Your task to perform on an android device: Do I have any events today? Image 0: 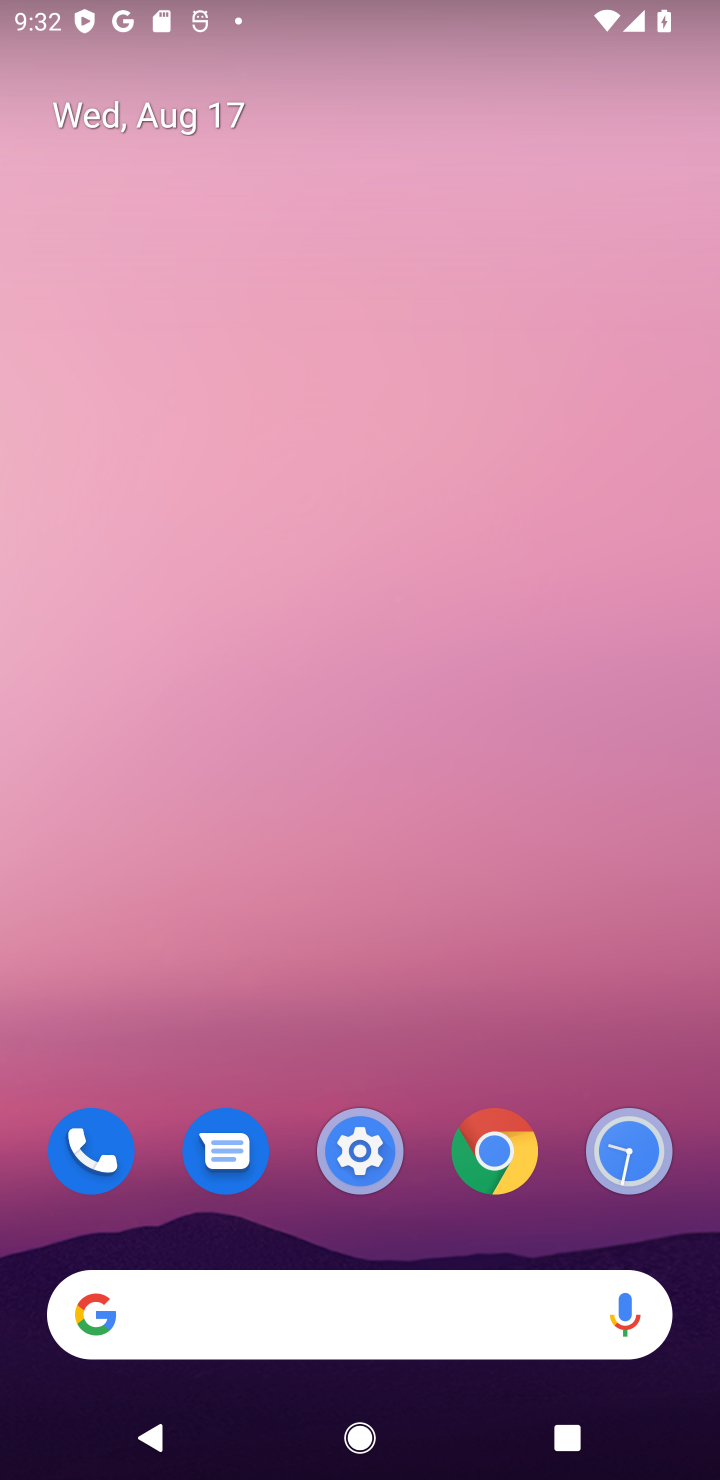
Step 0: drag from (324, 1199) to (361, 191)
Your task to perform on an android device: Do I have any events today? Image 1: 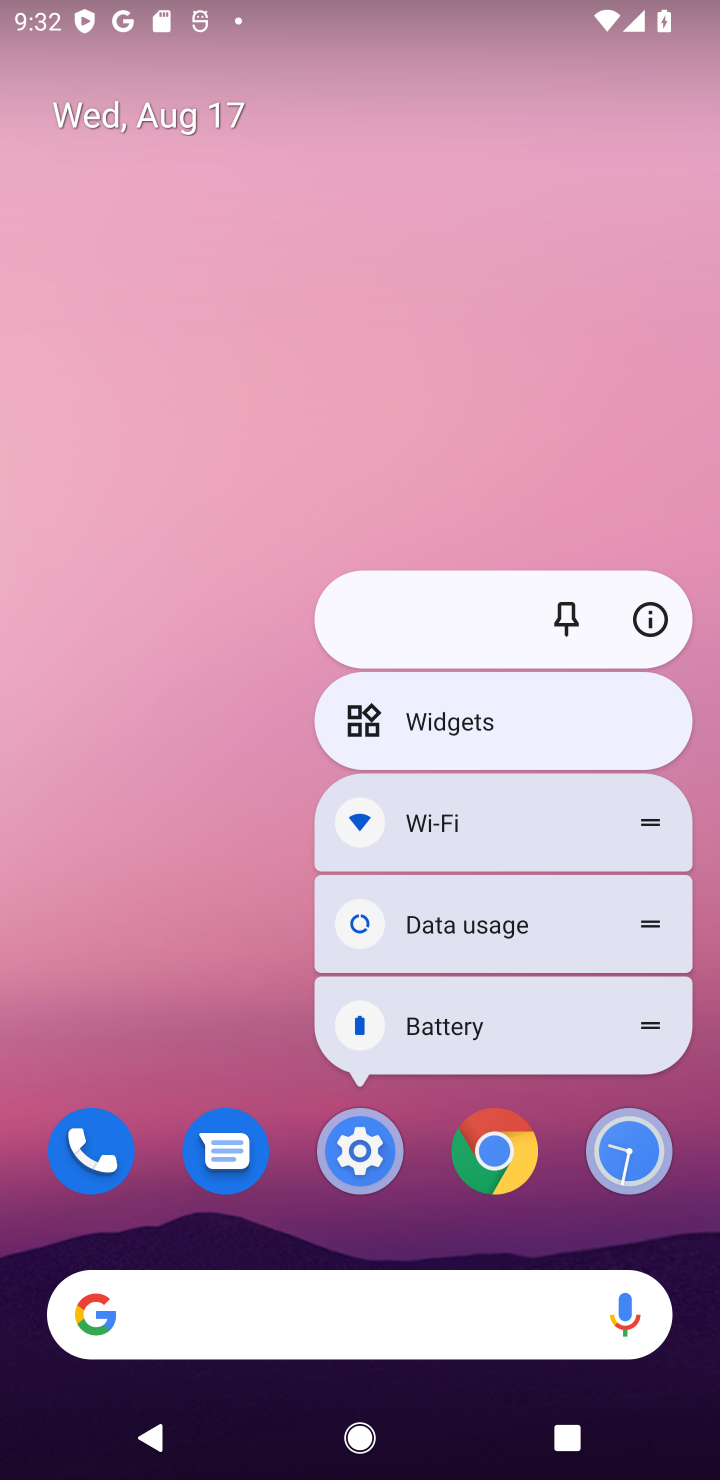
Step 1: drag from (367, 1096) to (429, 108)
Your task to perform on an android device: Do I have any events today? Image 2: 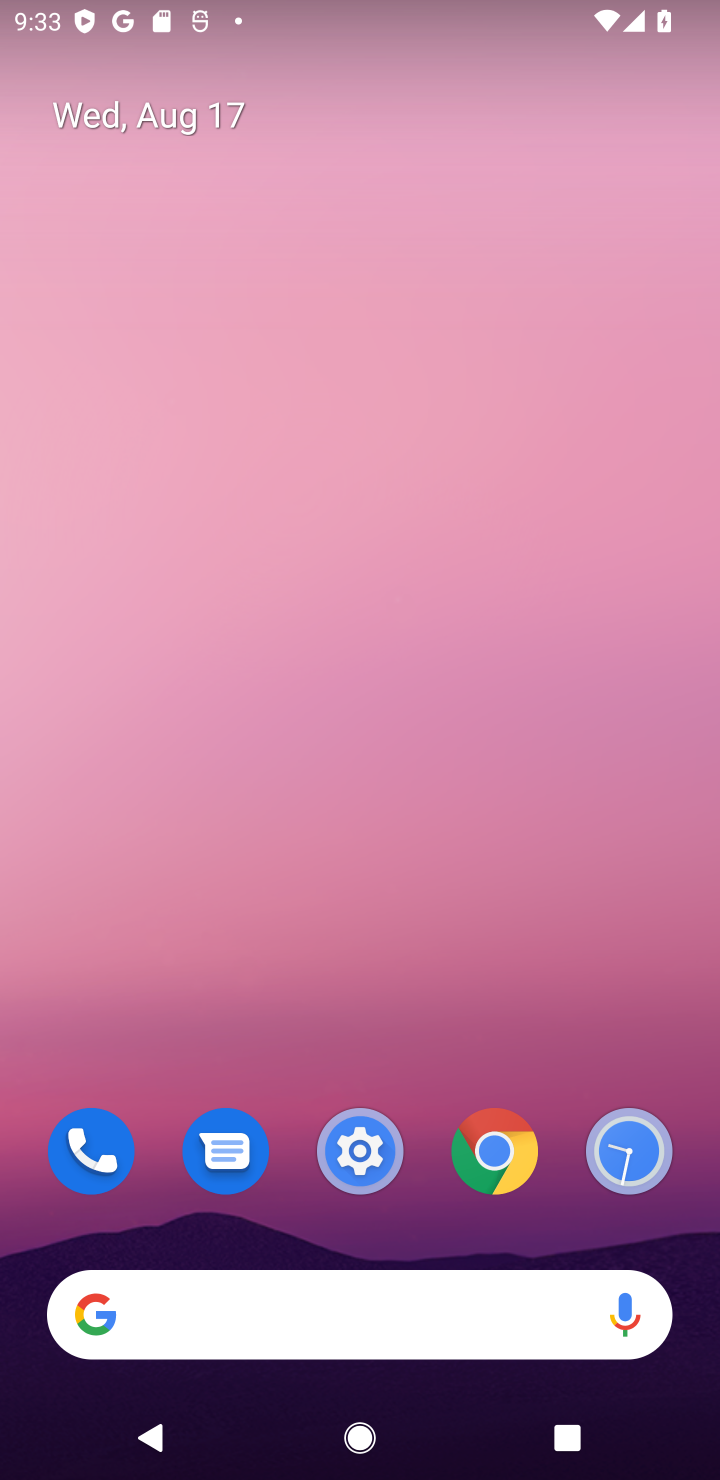
Step 2: drag from (331, 349) to (331, 33)
Your task to perform on an android device: Do I have any events today? Image 3: 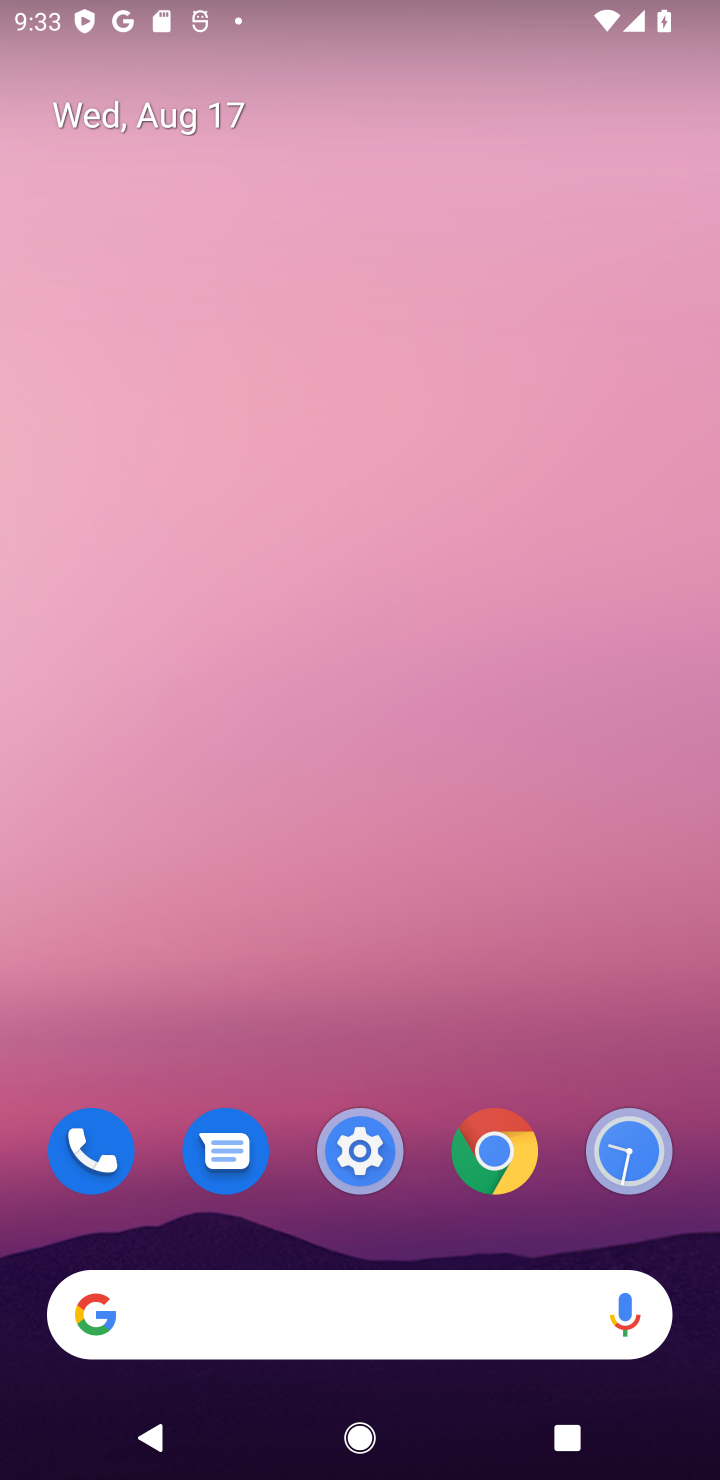
Step 3: drag from (352, 1241) to (455, 202)
Your task to perform on an android device: Do I have any events today? Image 4: 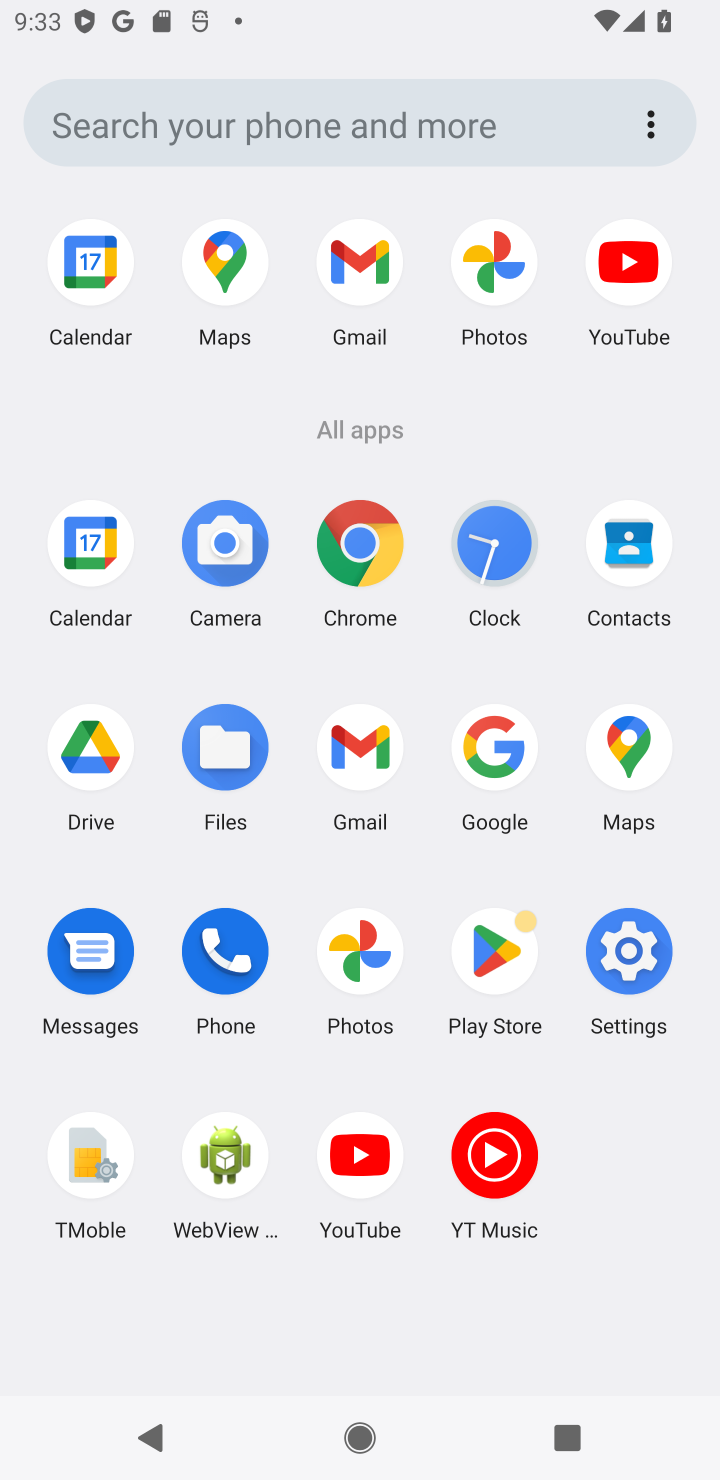
Step 4: click (74, 542)
Your task to perform on an android device: Do I have any events today? Image 5: 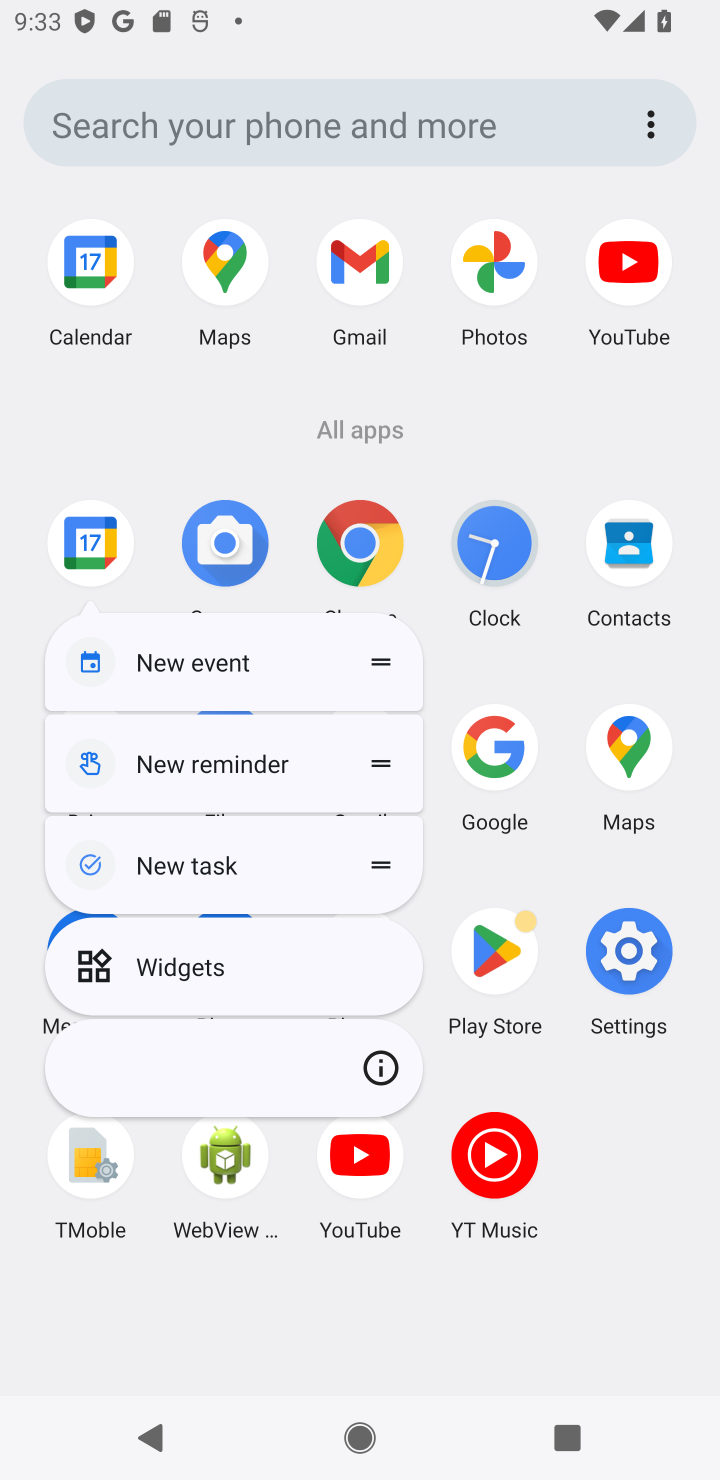
Step 5: click (112, 545)
Your task to perform on an android device: Do I have any events today? Image 6: 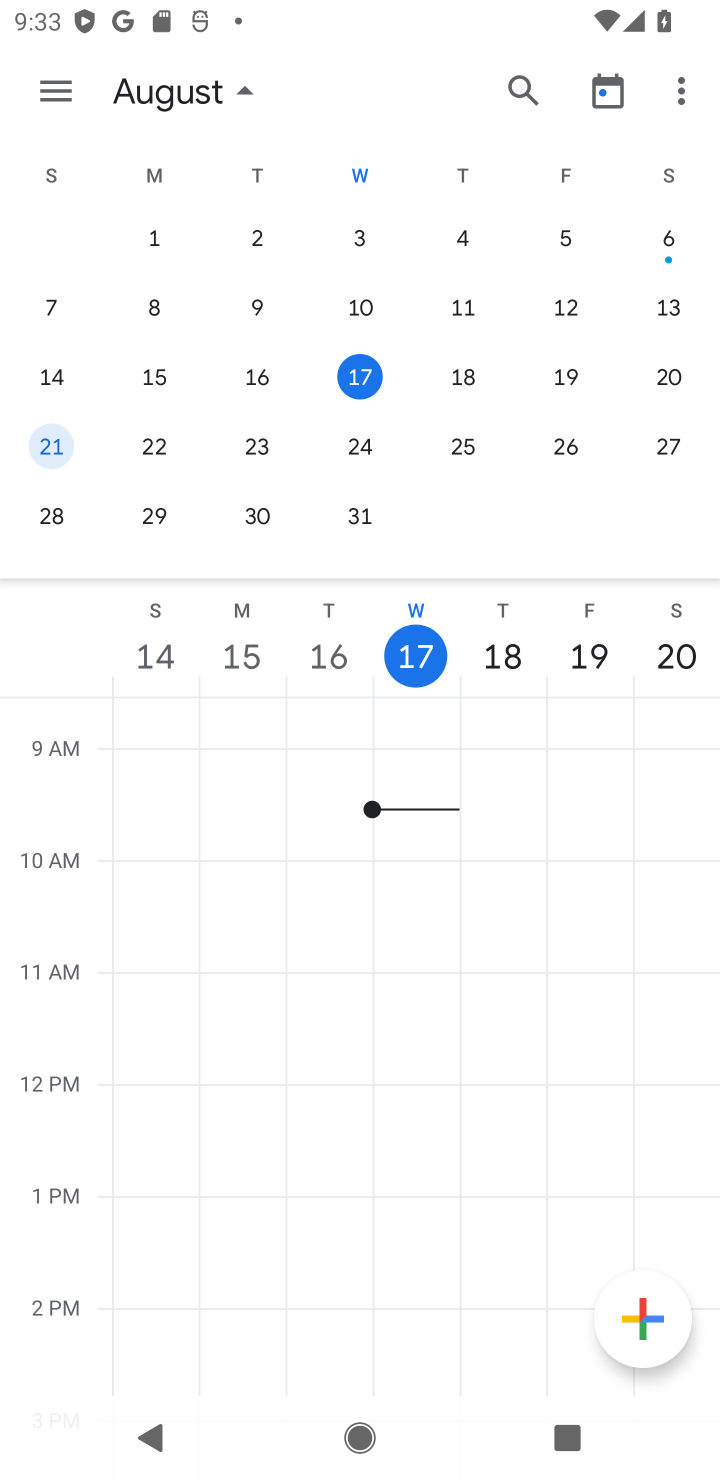
Step 6: task complete